Your task to perform on an android device: Show me popular videos on Youtube Image 0: 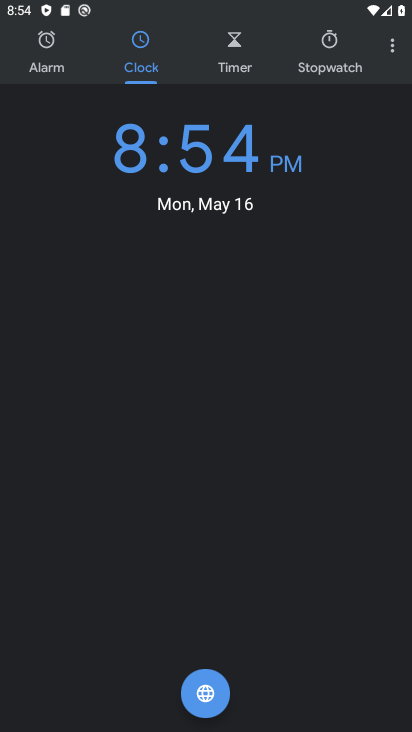
Step 0: press back button
Your task to perform on an android device: Show me popular videos on Youtube Image 1: 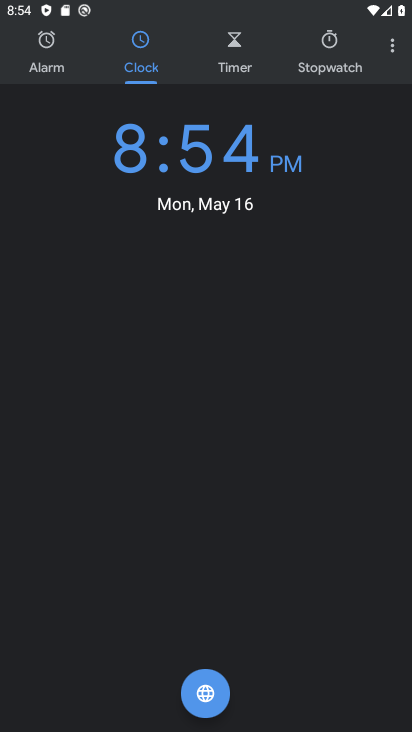
Step 1: press back button
Your task to perform on an android device: Show me popular videos on Youtube Image 2: 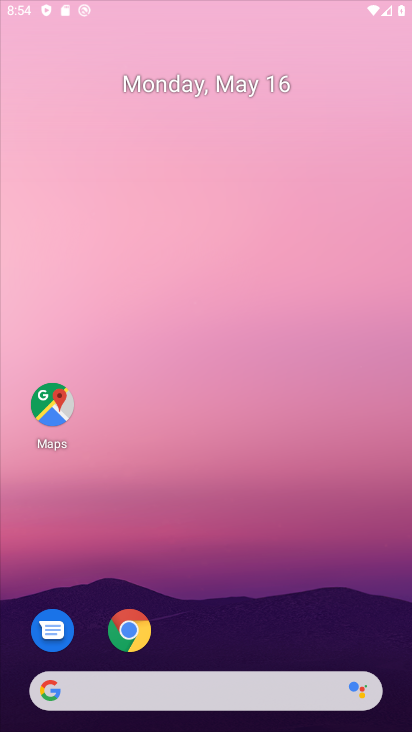
Step 2: press back button
Your task to perform on an android device: Show me popular videos on Youtube Image 3: 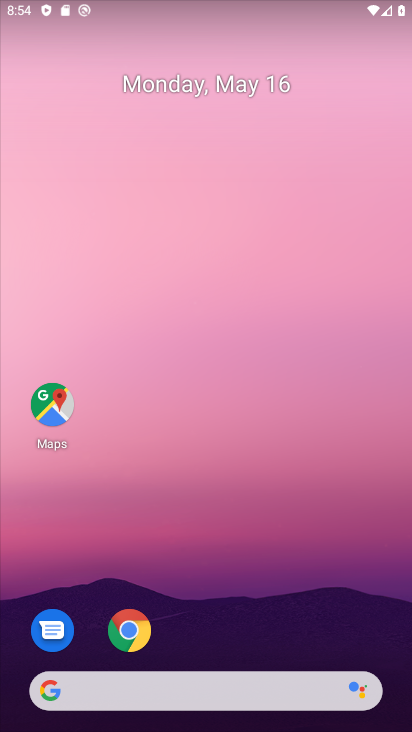
Step 3: drag from (337, 635) to (399, 546)
Your task to perform on an android device: Show me popular videos on Youtube Image 4: 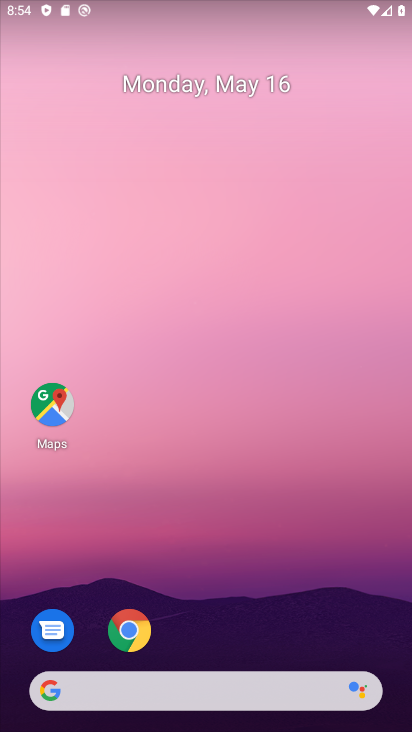
Step 4: drag from (277, 658) to (132, 20)
Your task to perform on an android device: Show me popular videos on Youtube Image 5: 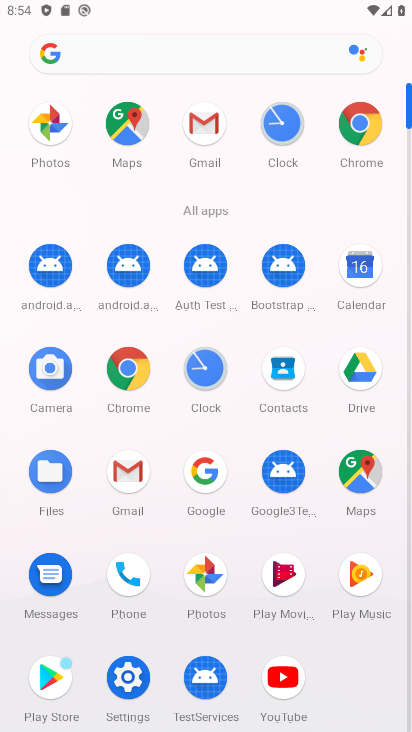
Step 5: click (283, 674)
Your task to perform on an android device: Show me popular videos on Youtube Image 6: 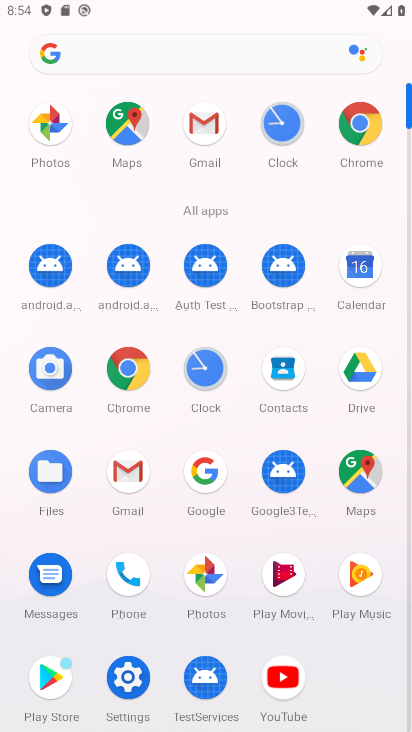
Step 6: click (283, 674)
Your task to perform on an android device: Show me popular videos on Youtube Image 7: 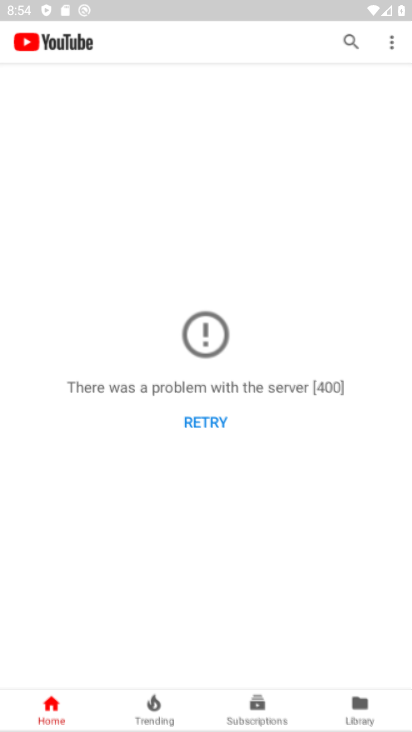
Step 7: click (285, 671)
Your task to perform on an android device: Show me popular videos on Youtube Image 8: 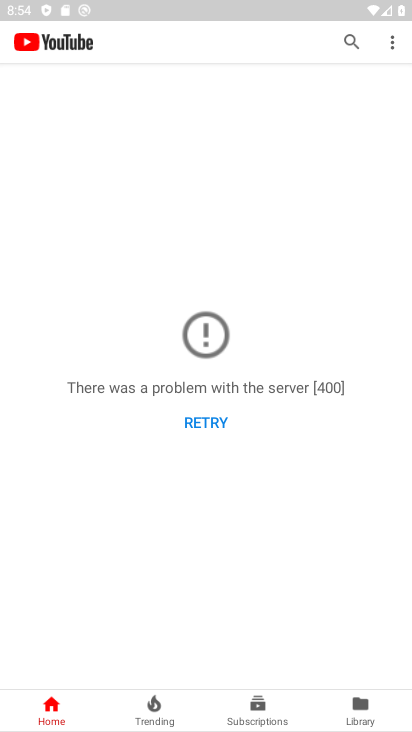
Step 8: task complete